Your task to perform on an android device: add a contact Image 0: 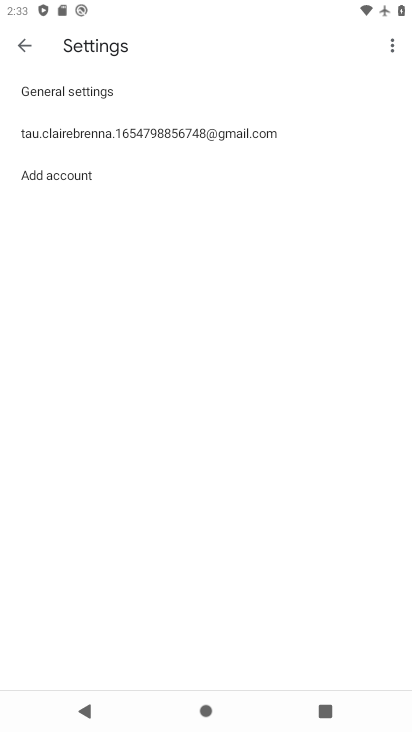
Step 0: press home button
Your task to perform on an android device: add a contact Image 1: 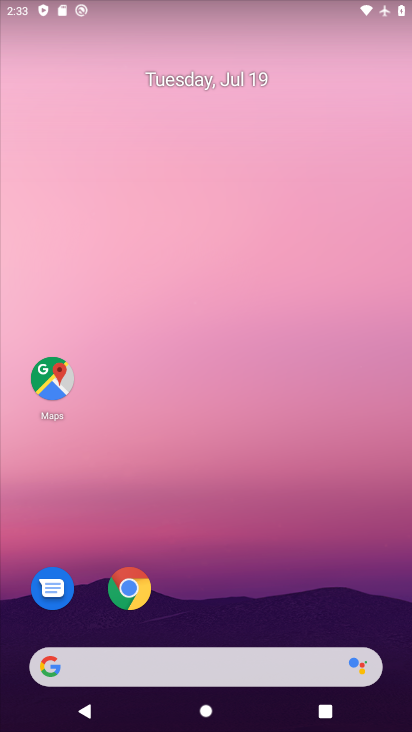
Step 1: drag from (242, 618) to (209, 15)
Your task to perform on an android device: add a contact Image 2: 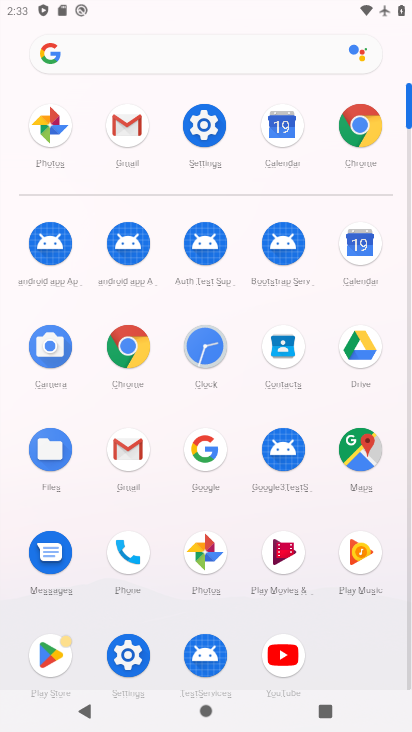
Step 2: click (291, 339)
Your task to perform on an android device: add a contact Image 3: 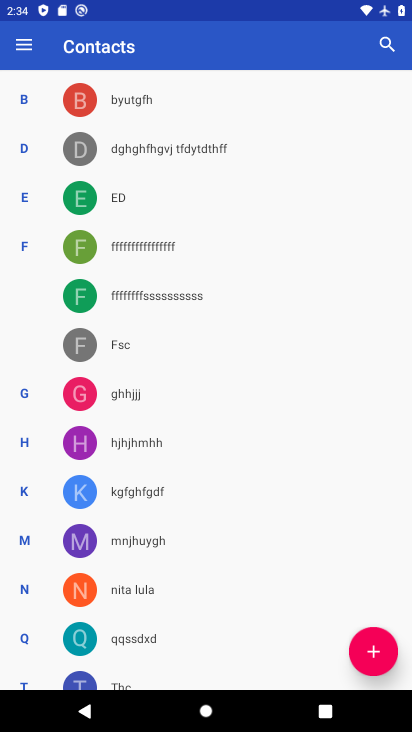
Step 3: click (367, 654)
Your task to perform on an android device: add a contact Image 4: 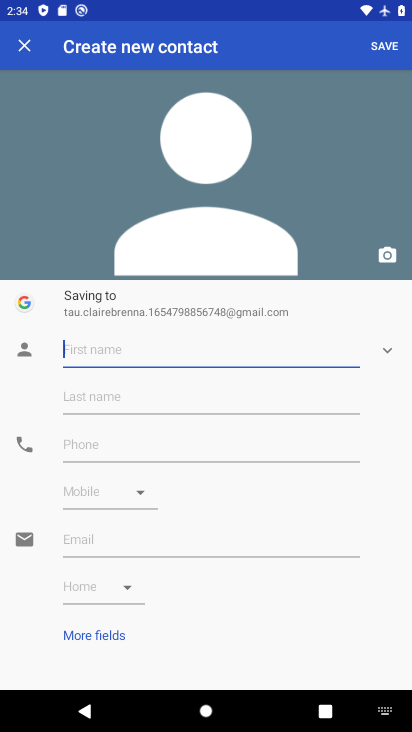
Step 4: type "hnmh"
Your task to perform on an android device: add a contact Image 5: 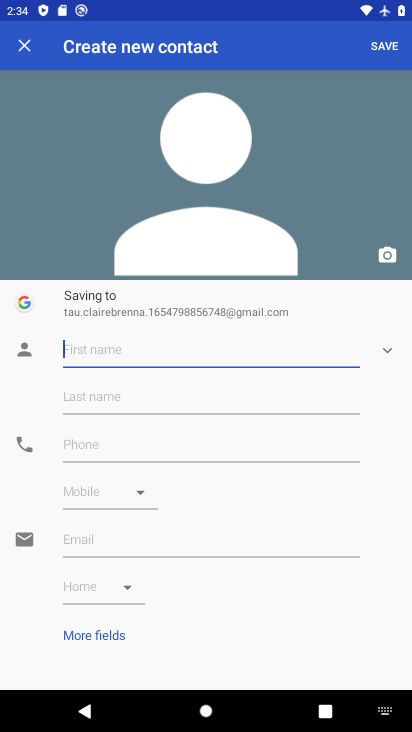
Step 5: click (160, 452)
Your task to perform on an android device: add a contact Image 6: 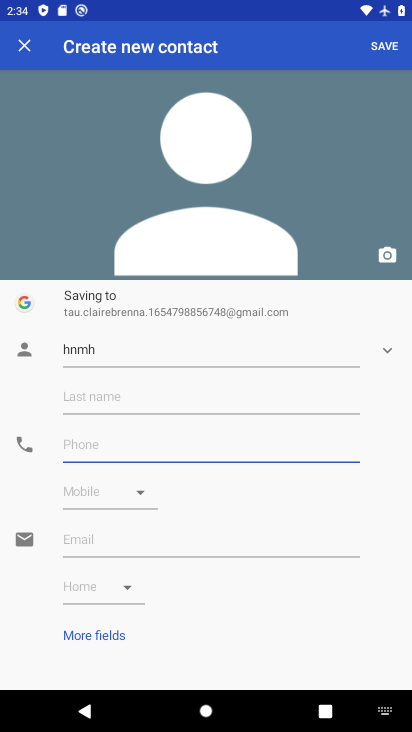
Step 6: type "666"
Your task to perform on an android device: add a contact Image 7: 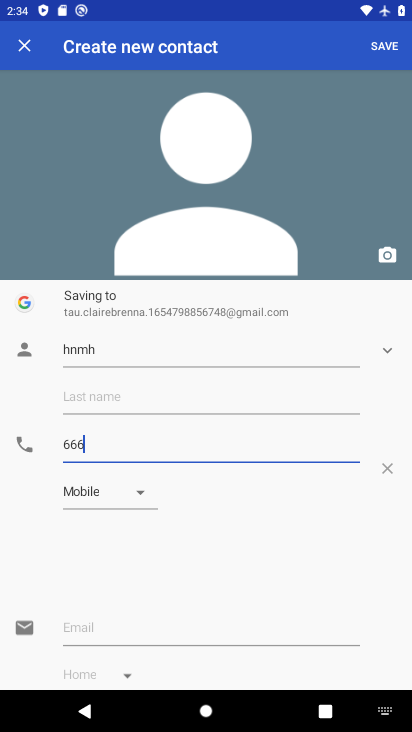
Step 7: press enter
Your task to perform on an android device: add a contact Image 8: 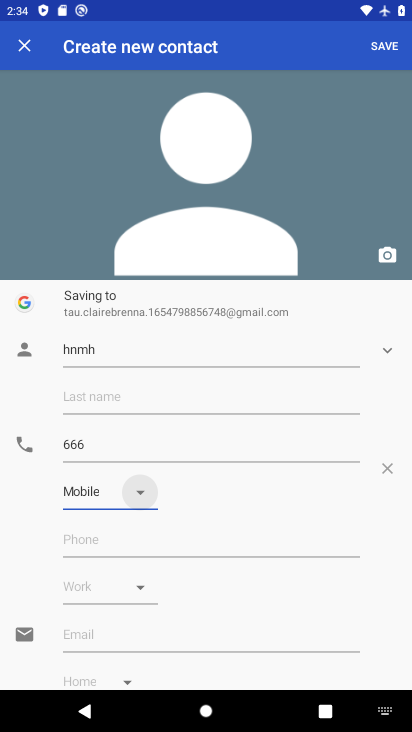
Step 8: click (385, 46)
Your task to perform on an android device: add a contact Image 9: 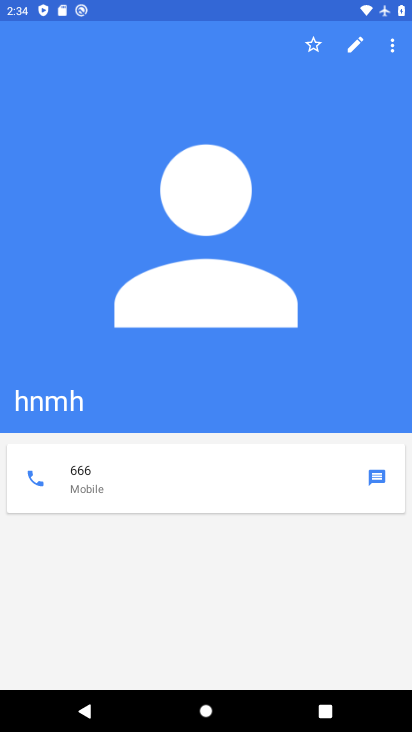
Step 9: task complete